Your task to perform on an android device: Open wifi settings Image 0: 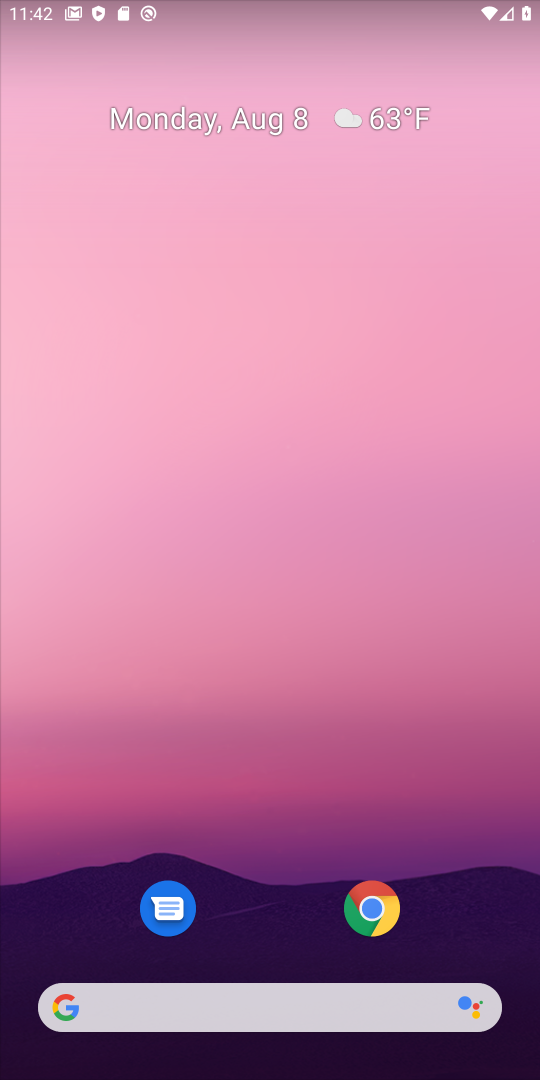
Step 0: drag from (464, 944) to (275, 154)
Your task to perform on an android device: Open wifi settings Image 1: 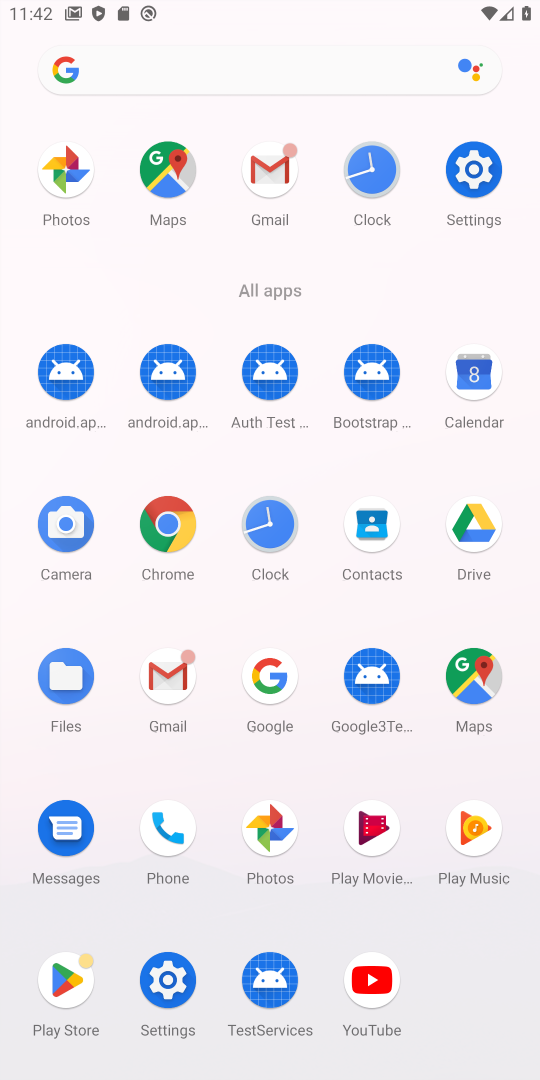
Step 1: click (463, 156)
Your task to perform on an android device: Open wifi settings Image 2: 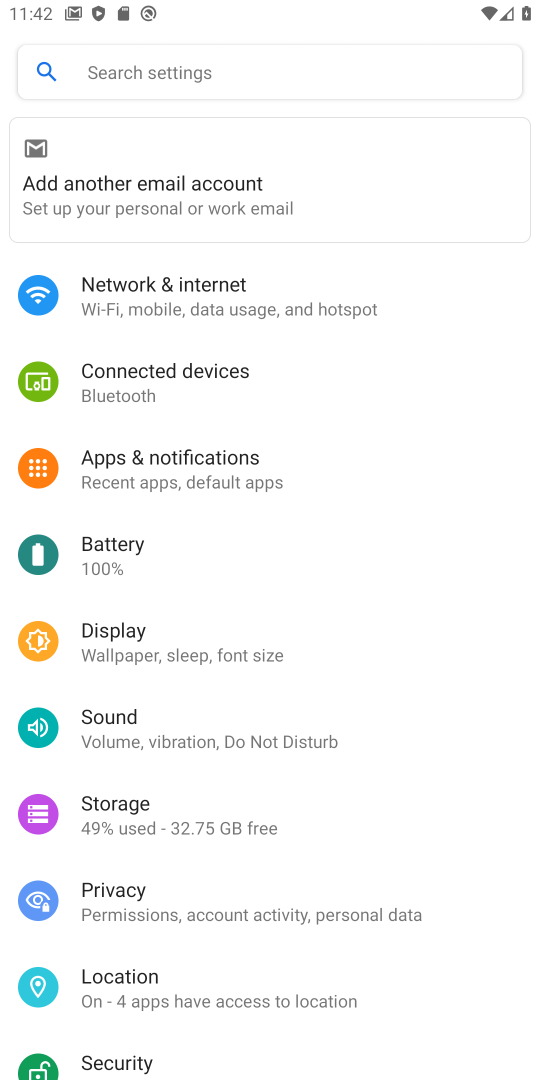
Step 2: click (365, 322)
Your task to perform on an android device: Open wifi settings Image 3: 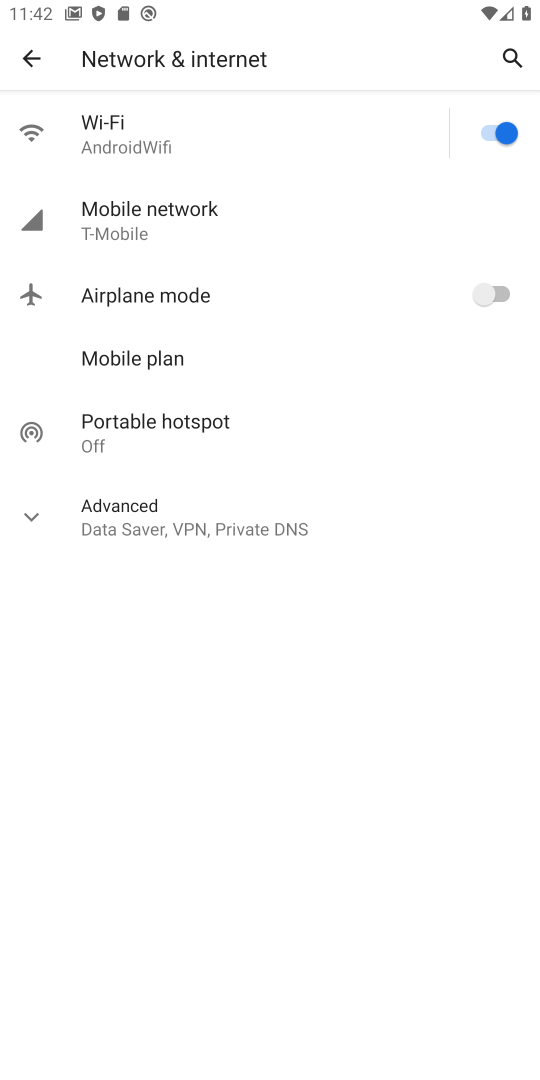
Step 3: click (129, 139)
Your task to perform on an android device: Open wifi settings Image 4: 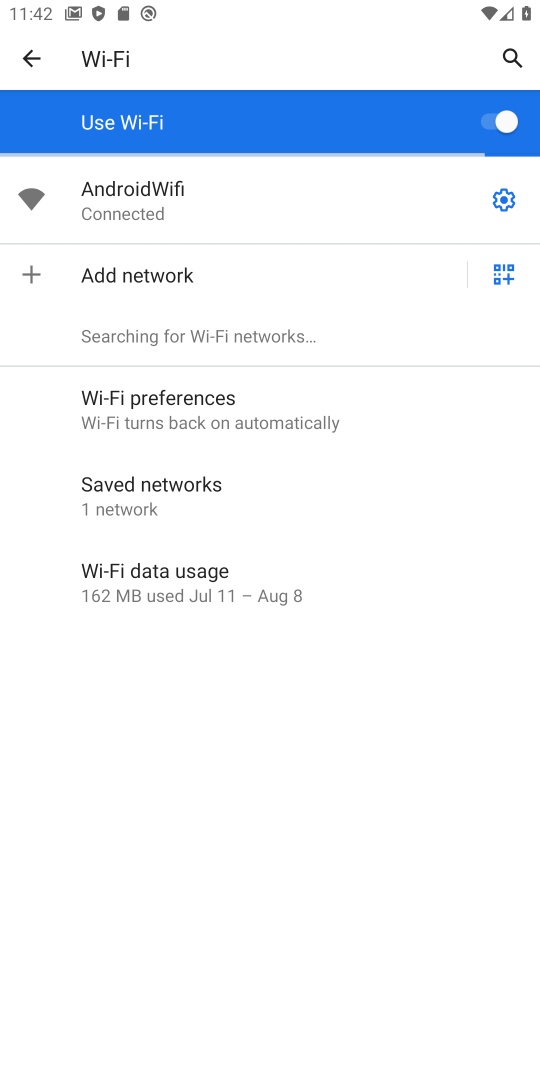
Step 4: task complete